Your task to perform on an android device: Open the web browser Image 0: 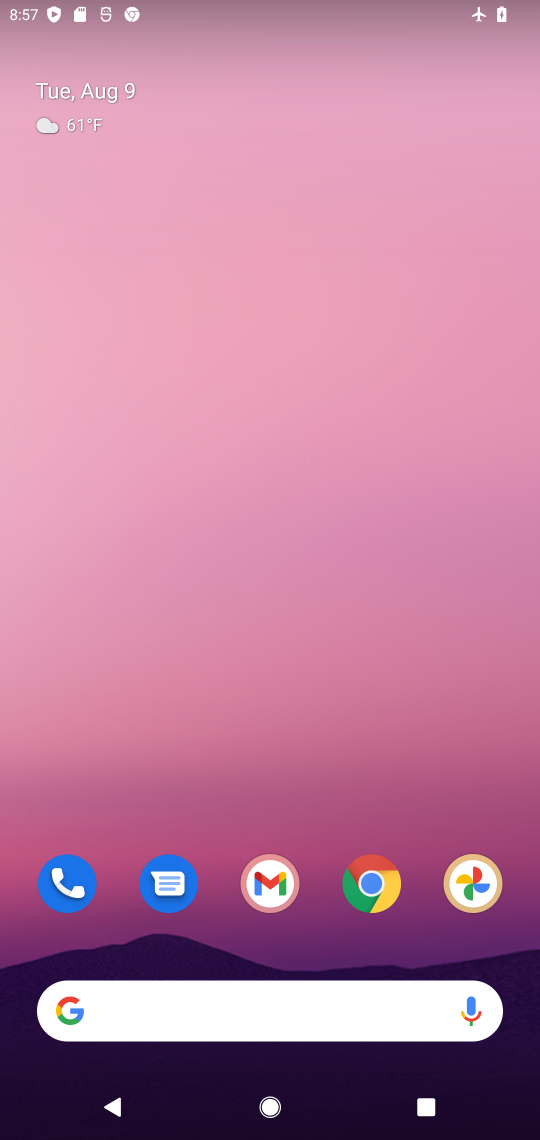
Step 0: drag from (340, 784) to (220, 140)
Your task to perform on an android device: Open the web browser Image 1: 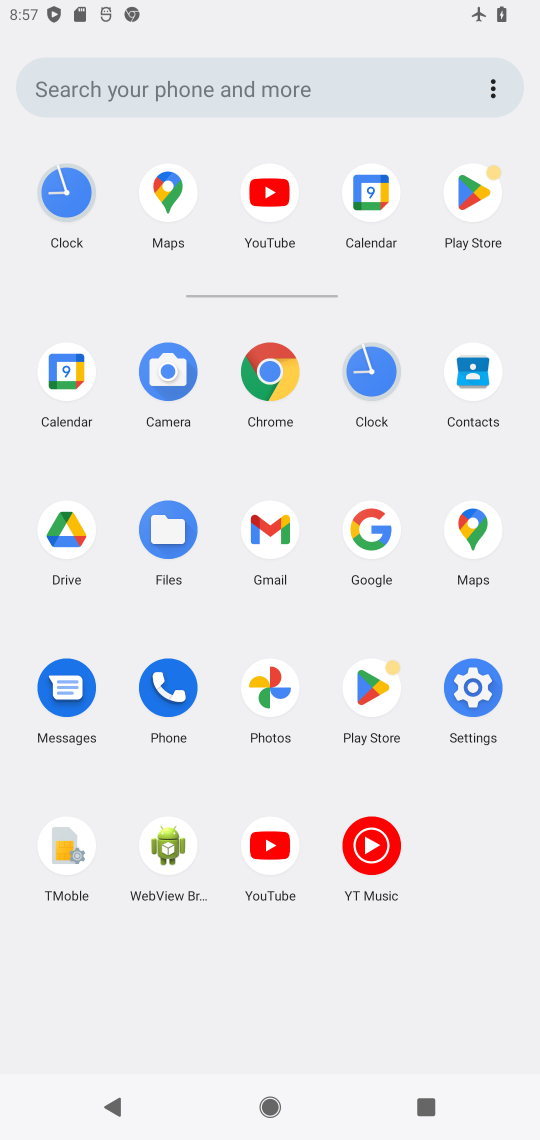
Step 1: click (262, 371)
Your task to perform on an android device: Open the web browser Image 2: 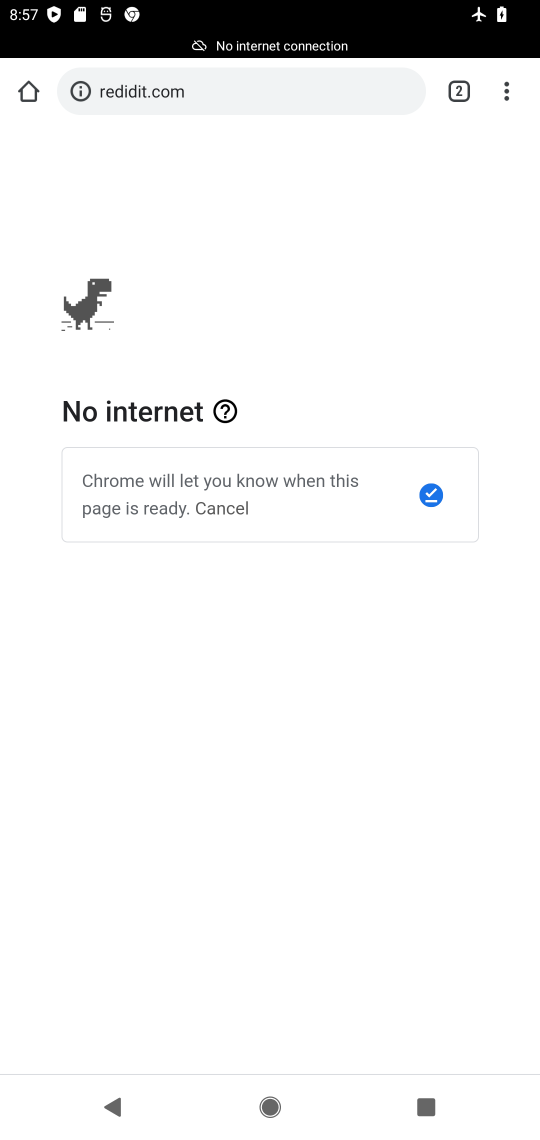
Step 2: task complete